Your task to perform on an android device: snooze an email in the gmail app Image 0: 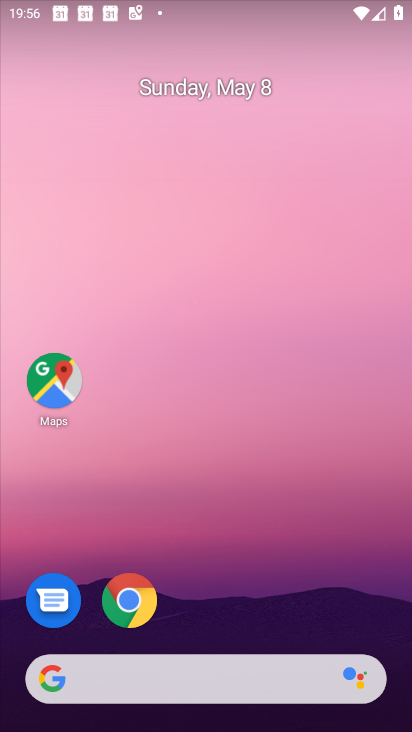
Step 0: drag from (268, 704) to (263, 175)
Your task to perform on an android device: snooze an email in the gmail app Image 1: 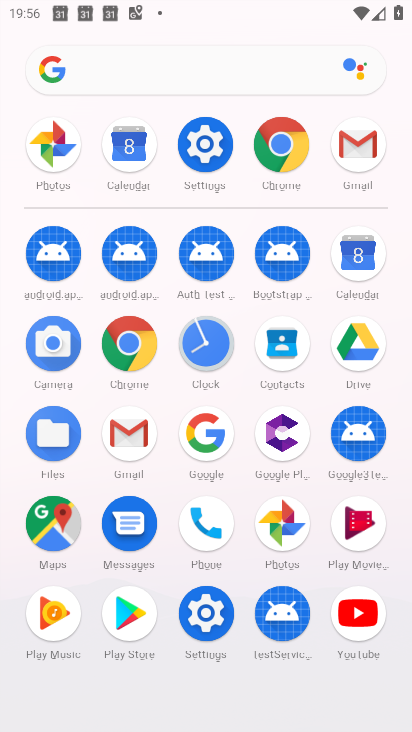
Step 1: click (355, 151)
Your task to perform on an android device: snooze an email in the gmail app Image 2: 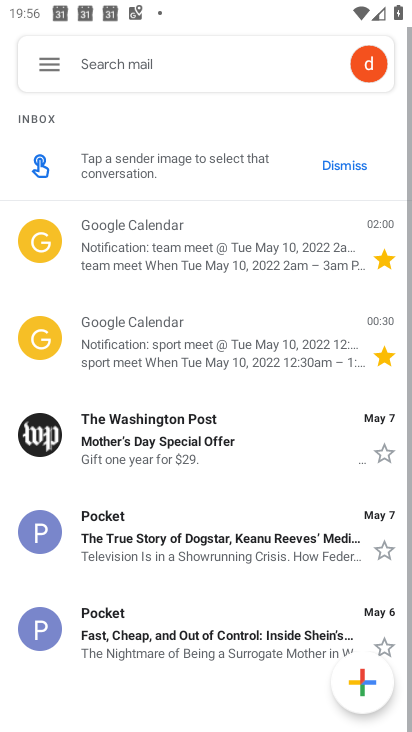
Step 2: click (338, 158)
Your task to perform on an android device: snooze an email in the gmail app Image 3: 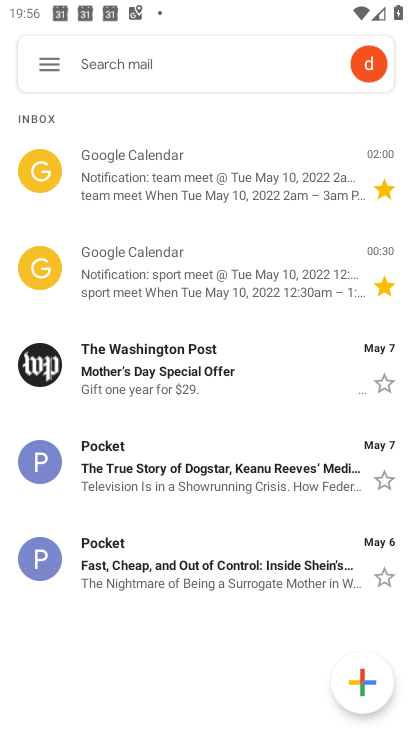
Step 3: click (25, 61)
Your task to perform on an android device: snooze an email in the gmail app Image 4: 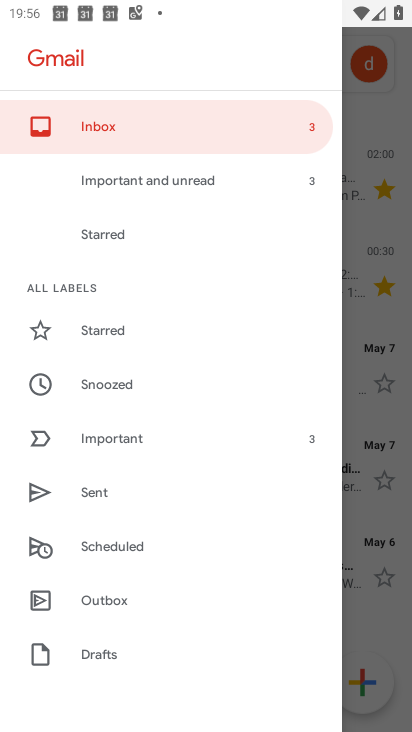
Step 4: click (122, 385)
Your task to perform on an android device: snooze an email in the gmail app Image 5: 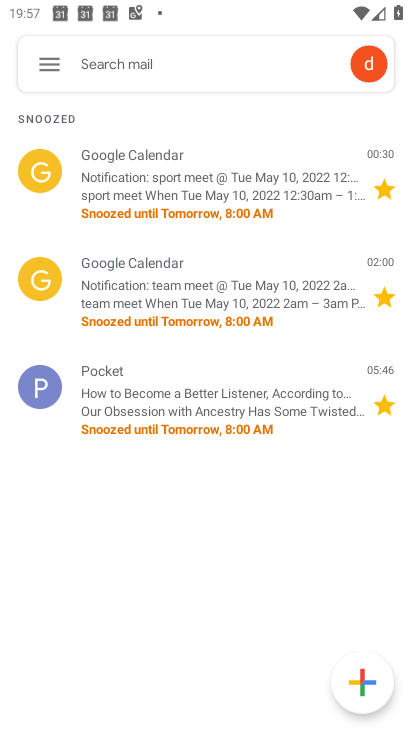
Step 5: click (44, 68)
Your task to perform on an android device: snooze an email in the gmail app Image 6: 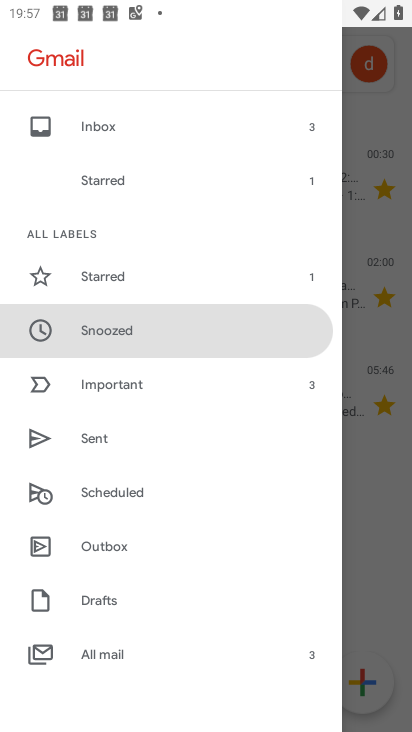
Step 6: click (131, 336)
Your task to perform on an android device: snooze an email in the gmail app Image 7: 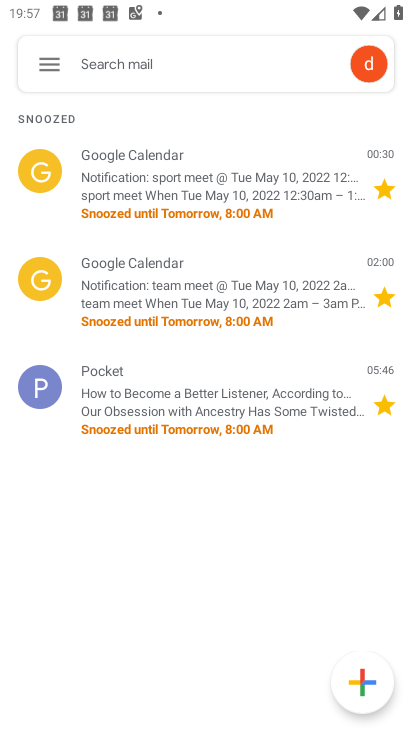
Step 7: task complete